Your task to perform on an android device: turn off wifi Image 0: 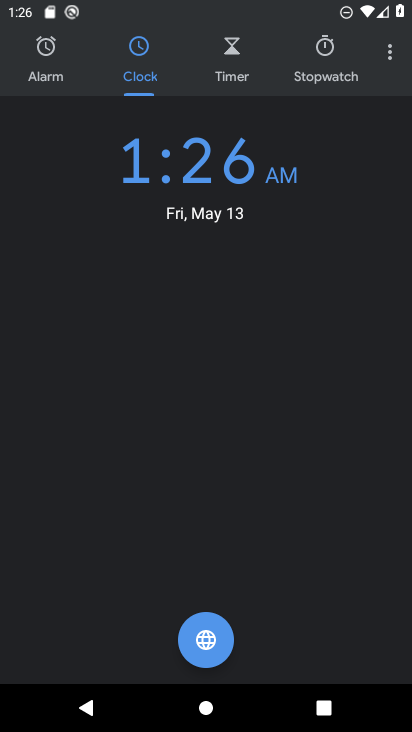
Step 0: press home button
Your task to perform on an android device: turn off wifi Image 1: 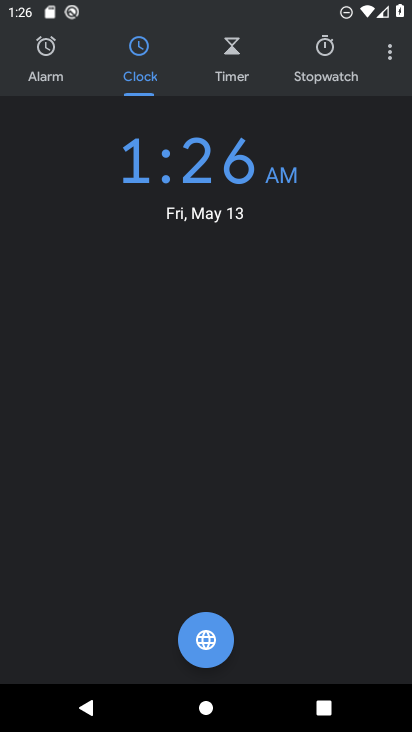
Step 1: press home button
Your task to perform on an android device: turn off wifi Image 2: 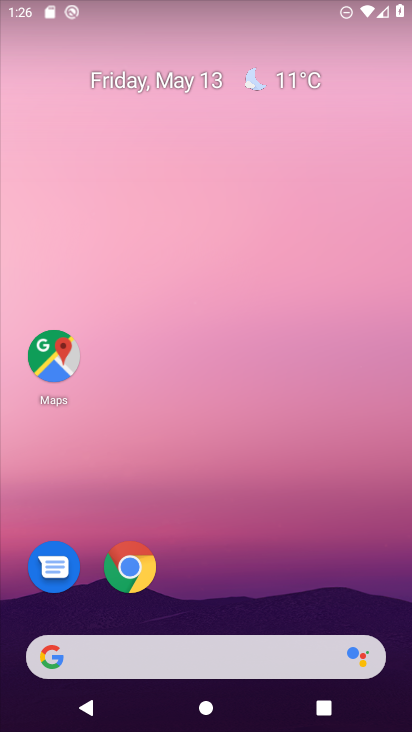
Step 2: click (124, 562)
Your task to perform on an android device: turn off wifi Image 3: 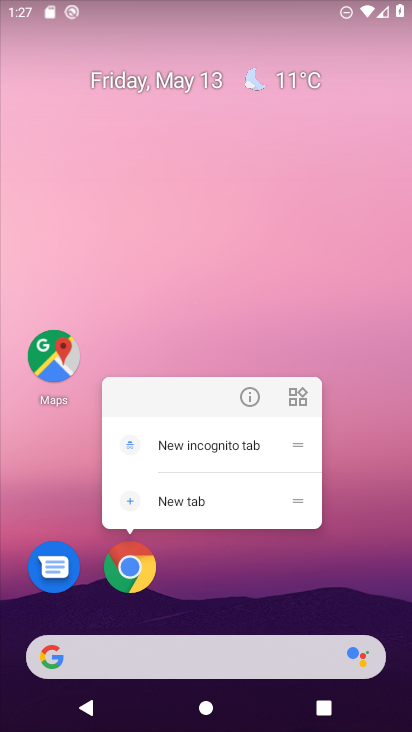
Step 3: drag from (278, 598) to (296, 14)
Your task to perform on an android device: turn off wifi Image 4: 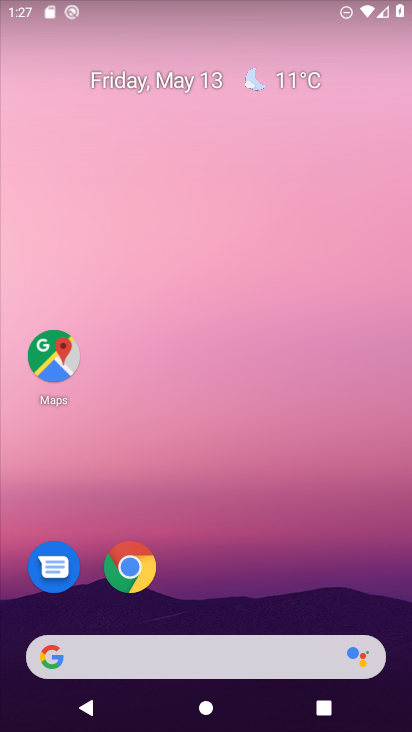
Step 4: drag from (224, 570) to (278, 0)
Your task to perform on an android device: turn off wifi Image 5: 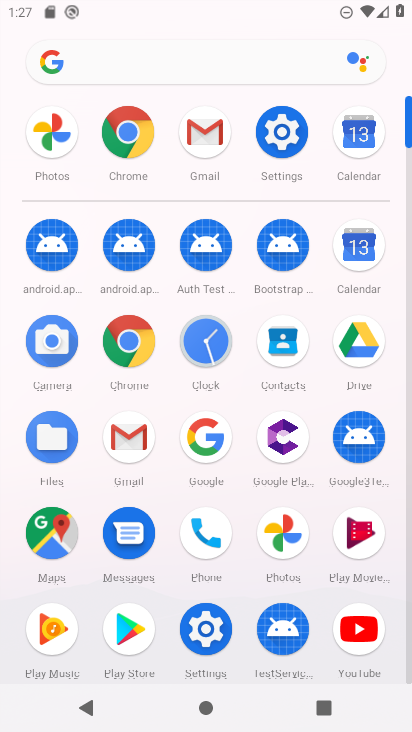
Step 5: click (280, 129)
Your task to perform on an android device: turn off wifi Image 6: 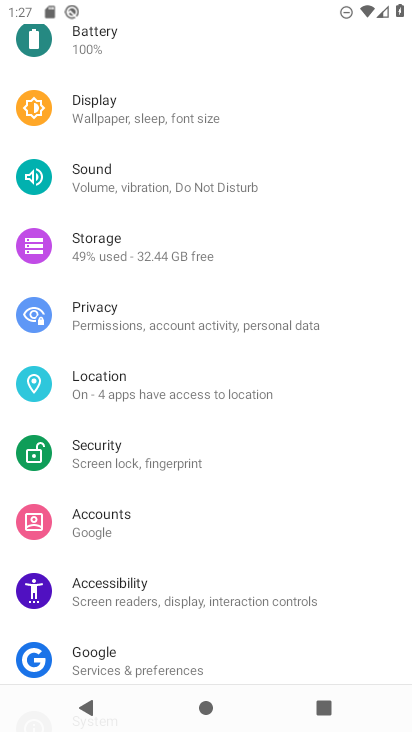
Step 6: drag from (147, 93) to (167, 626)
Your task to perform on an android device: turn off wifi Image 7: 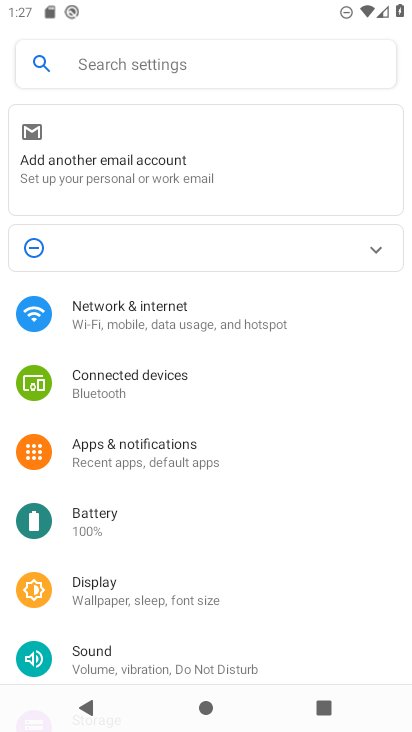
Step 7: click (198, 304)
Your task to perform on an android device: turn off wifi Image 8: 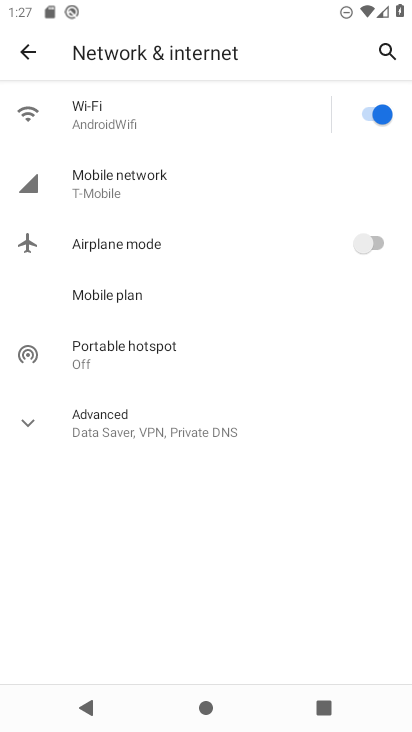
Step 8: click (369, 113)
Your task to perform on an android device: turn off wifi Image 9: 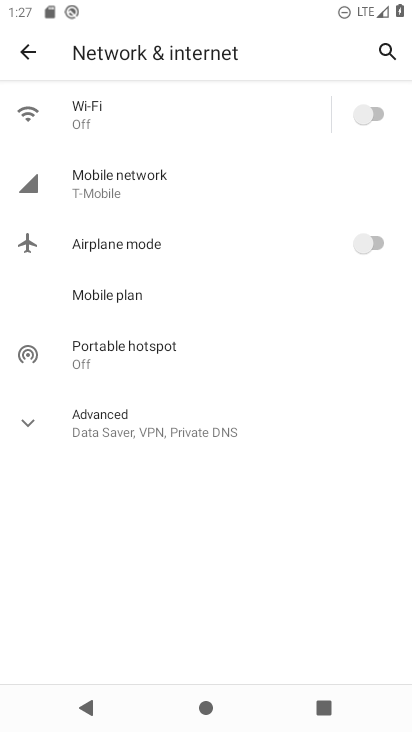
Step 9: task complete